Your task to perform on an android device: turn off priority inbox in the gmail app Image 0: 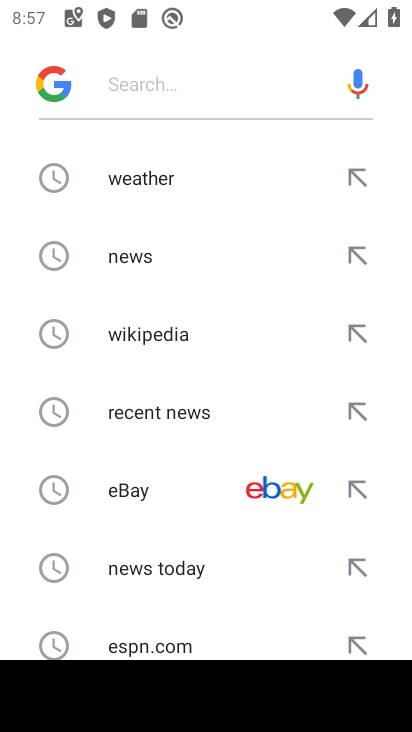
Step 0: press home button
Your task to perform on an android device: turn off priority inbox in the gmail app Image 1: 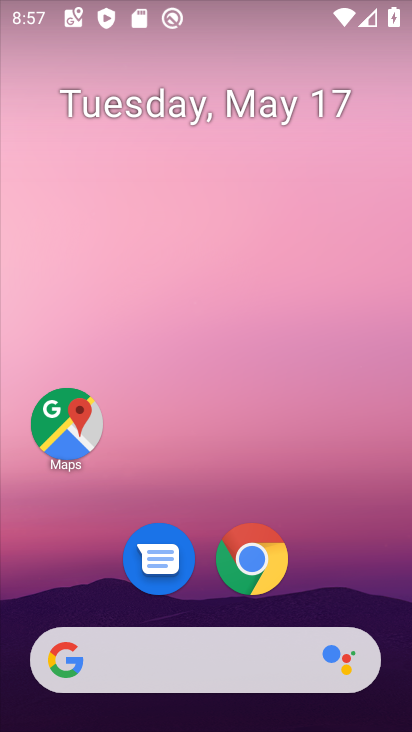
Step 1: drag from (211, 718) to (335, 1)
Your task to perform on an android device: turn off priority inbox in the gmail app Image 2: 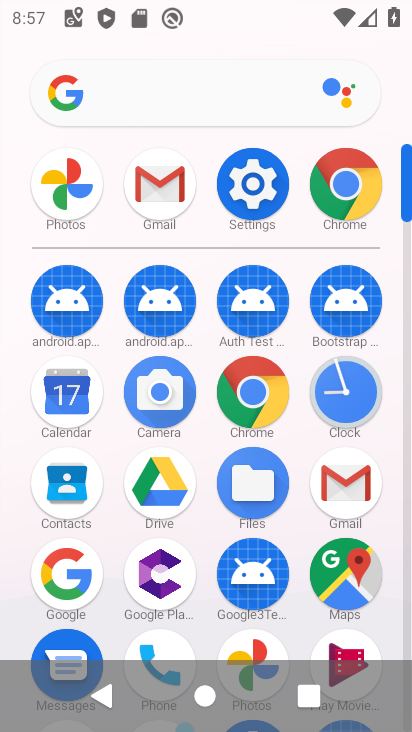
Step 2: click (162, 196)
Your task to perform on an android device: turn off priority inbox in the gmail app Image 3: 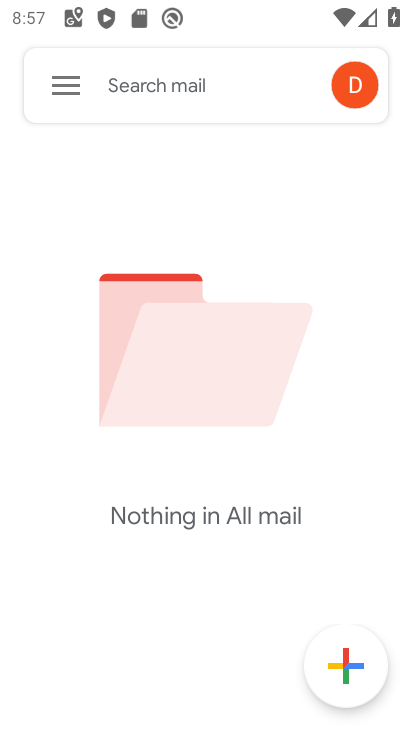
Step 3: click (70, 74)
Your task to perform on an android device: turn off priority inbox in the gmail app Image 4: 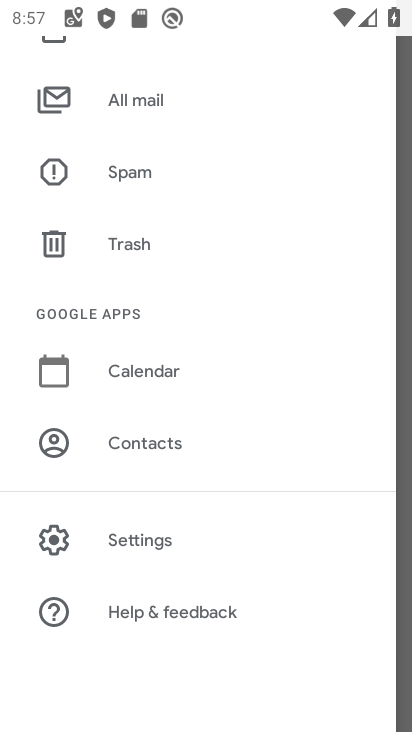
Step 4: click (165, 534)
Your task to perform on an android device: turn off priority inbox in the gmail app Image 5: 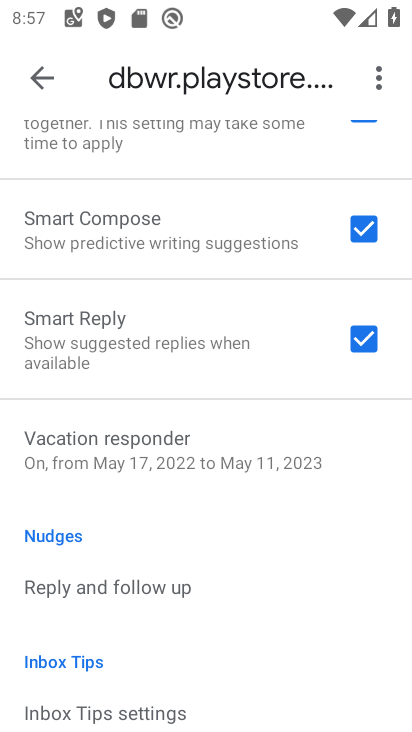
Step 5: drag from (251, 179) to (260, 705)
Your task to perform on an android device: turn off priority inbox in the gmail app Image 6: 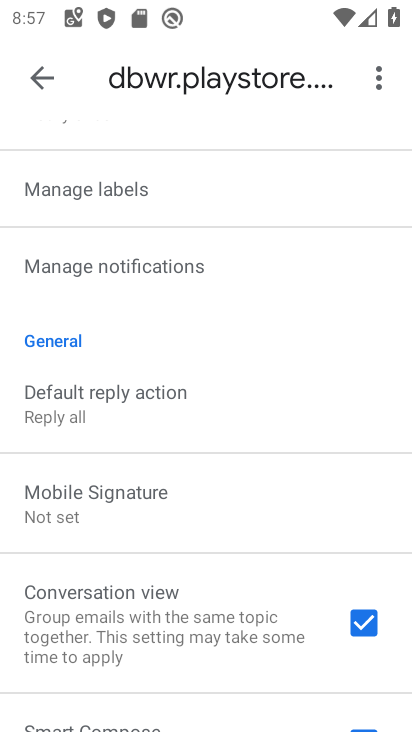
Step 6: drag from (240, 253) to (260, 661)
Your task to perform on an android device: turn off priority inbox in the gmail app Image 7: 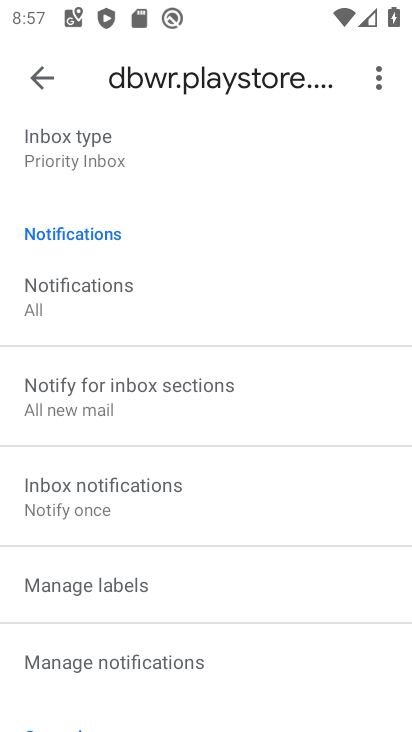
Step 7: click (65, 155)
Your task to perform on an android device: turn off priority inbox in the gmail app Image 8: 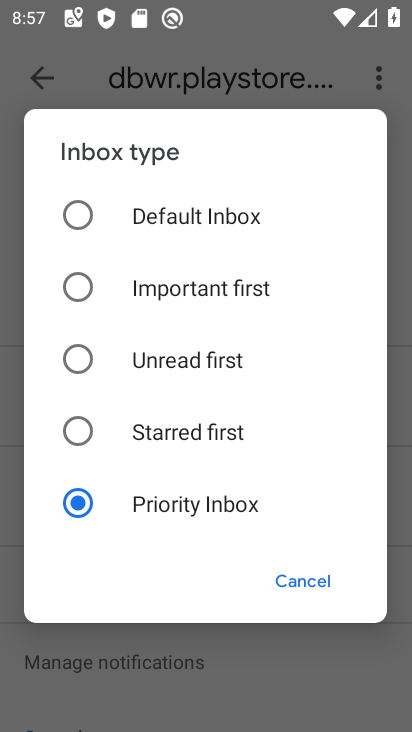
Step 8: click (195, 226)
Your task to perform on an android device: turn off priority inbox in the gmail app Image 9: 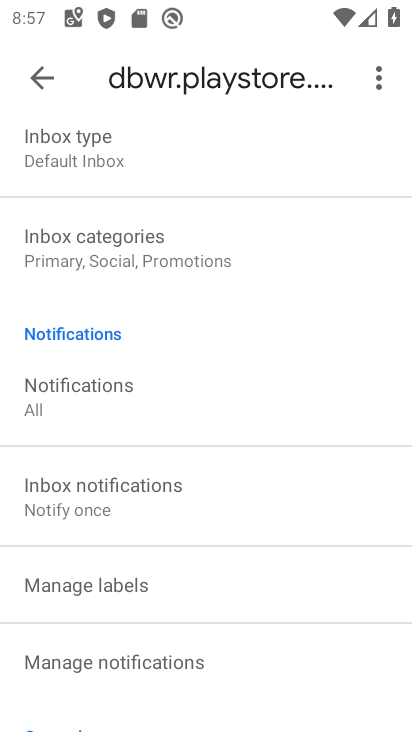
Step 9: task complete